Your task to perform on an android device: change notifications settings Image 0: 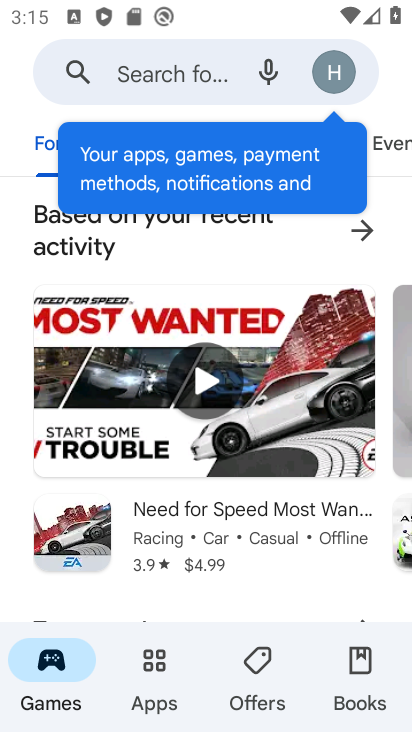
Step 0: press home button
Your task to perform on an android device: change notifications settings Image 1: 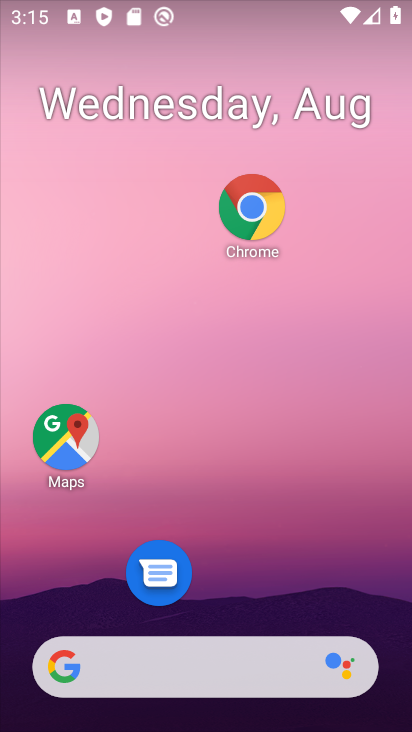
Step 1: drag from (258, 588) to (263, 1)
Your task to perform on an android device: change notifications settings Image 2: 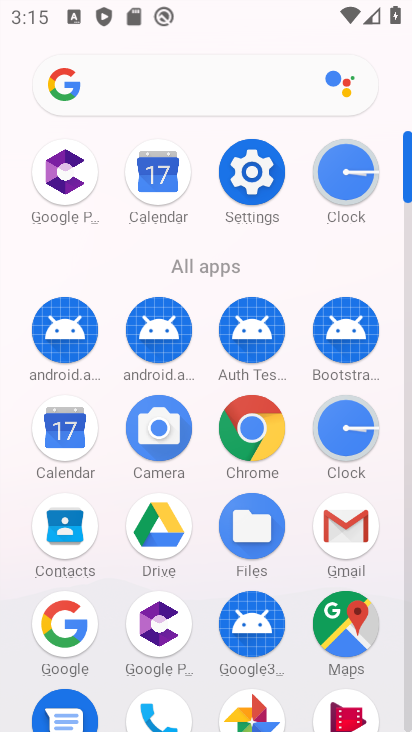
Step 2: click (251, 165)
Your task to perform on an android device: change notifications settings Image 3: 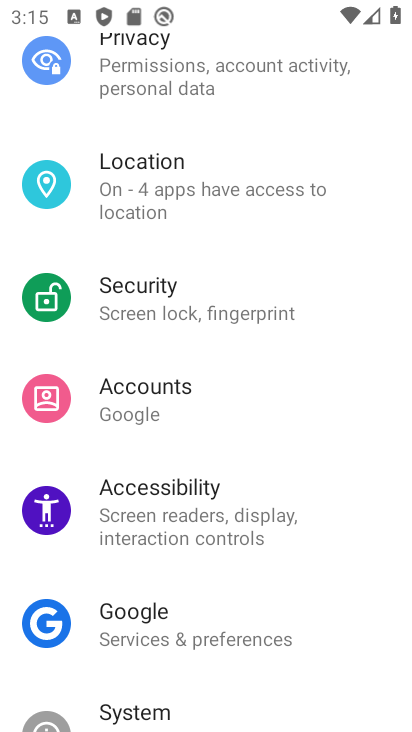
Step 3: drag from (241, 171) to (241, 666)
Your task to perform on an android device: change notifications settings Image 4: 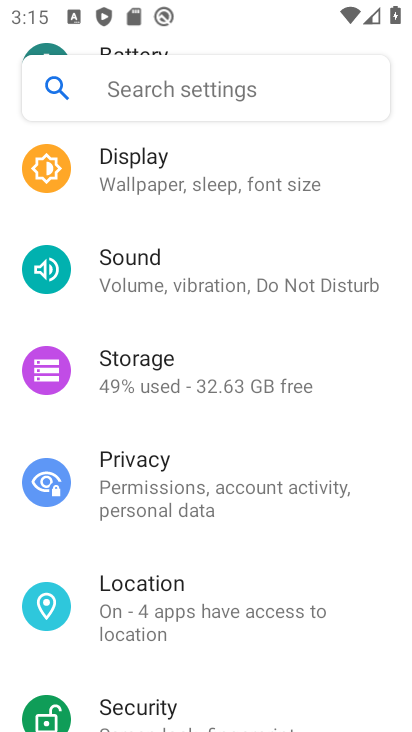
Step 4: drag from (289, 259) to (257, 651)
Your task to perform on an android device: change notifications settings Image 5: 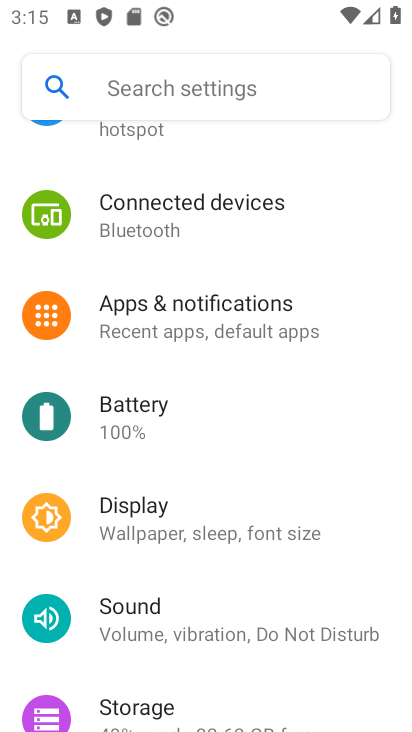
Step 5: click (254, 326)
Your task to perform on an android device: change notifications settings Image 6: 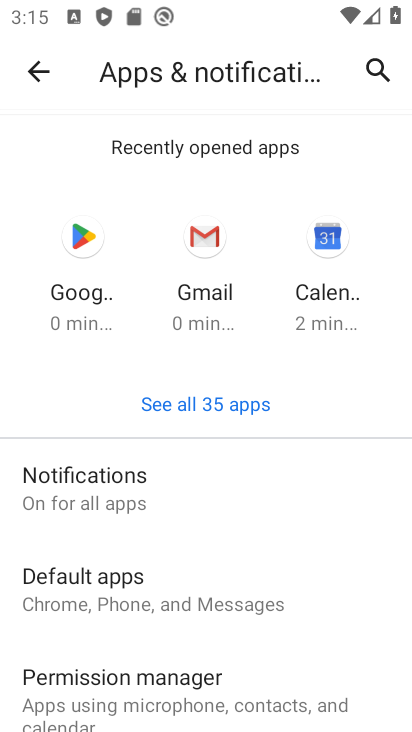
Step 6: click (110, 488)
Your task to perform on an android device: change notifications settings Image 7: 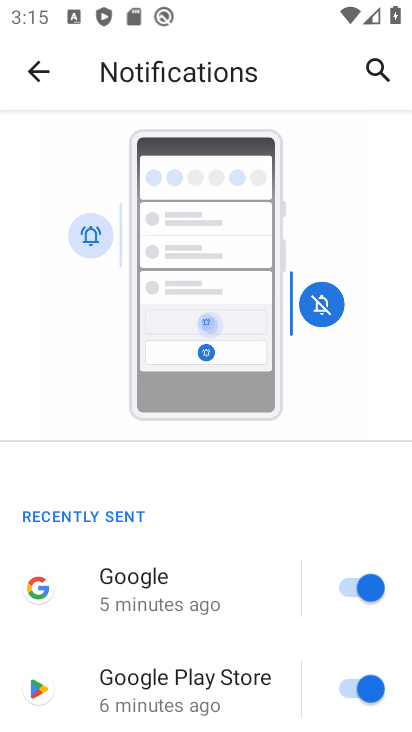
Step 7: drag from (216, 561) to (250, 42)
Your task to perform on an android device: change notifications settings Image 8: 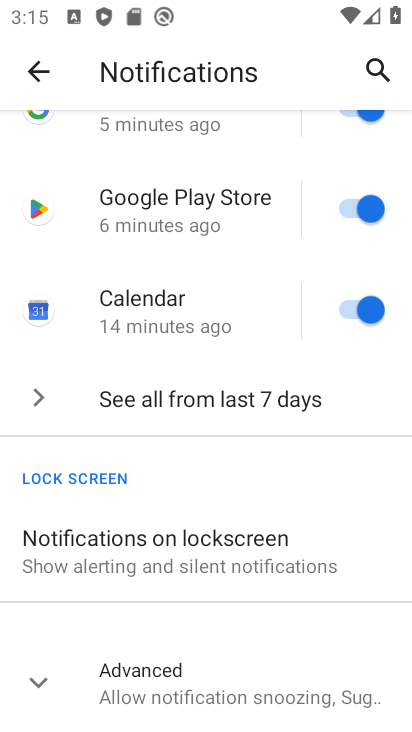
Step 8: click (237, 402)
Your task to perform on an android device: change notifications settings Image 9: 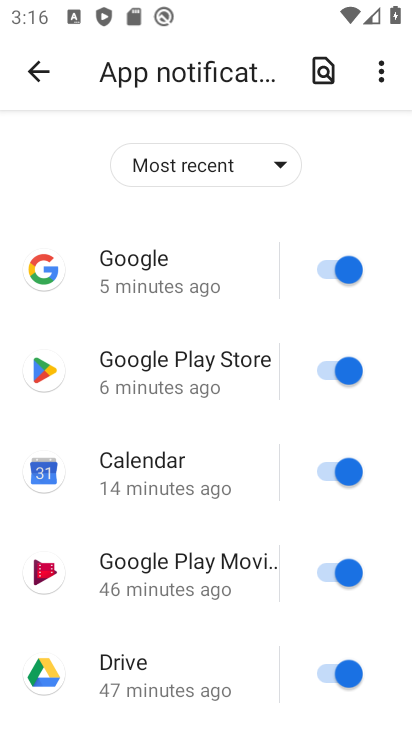
Step 9: click (336, 270)
Your task to perform on an android device: change notifications settings Image 10: 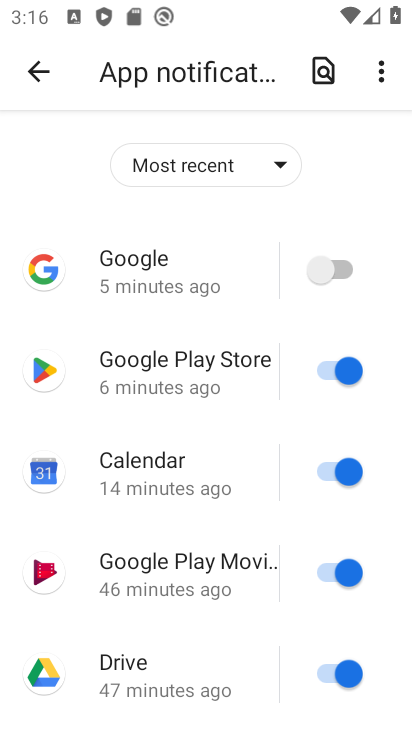
Step 10: click (332, 360)
Your task to perform on an android device: change notifications settings Image 11: 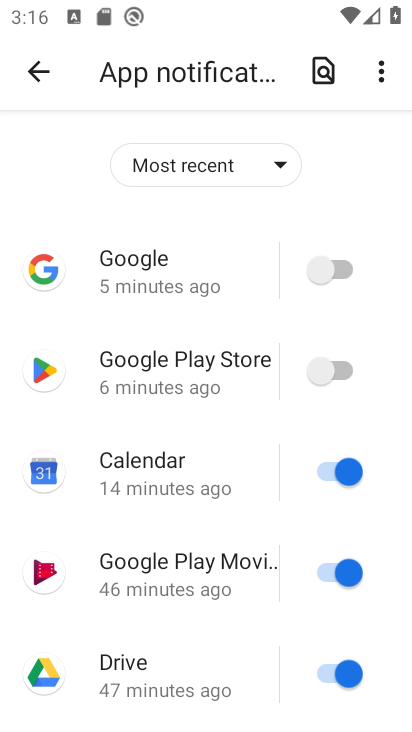
Step 11: click (337, 463)
Your task to perform on an android device: change notifications settings Image 12: 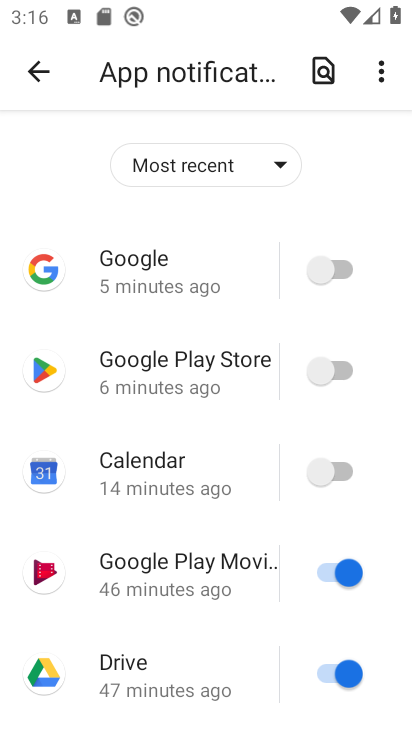
Step 12: click (337, 563)
Your task to perform on an android device: change notifications settings Image 13: 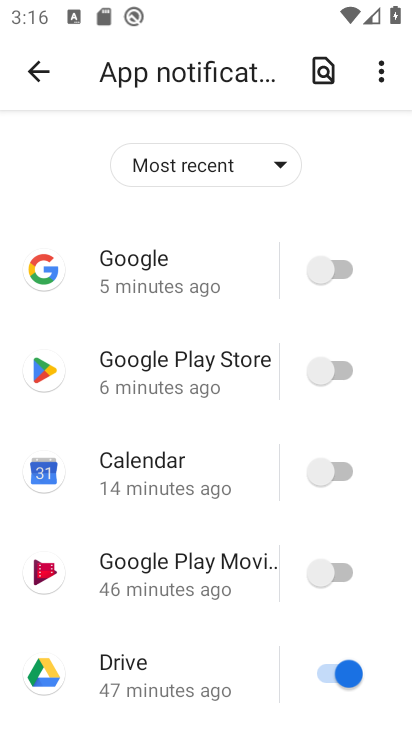
Step 13: click (341, 663)
Your task to perform on an android device: change notifications settings Image 14: 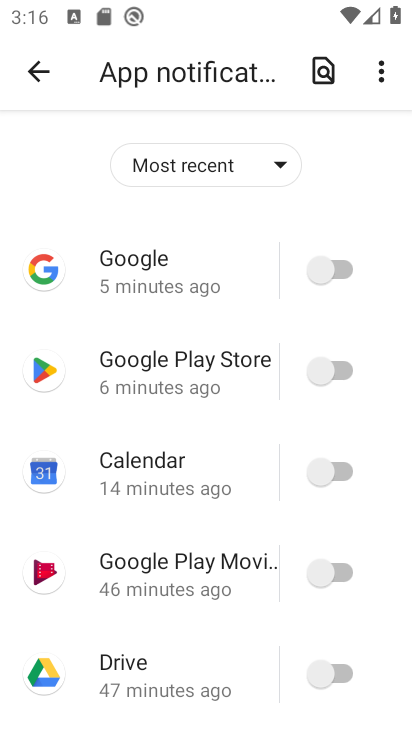
Step 14: drag from (192, 602) to (249, 5)
Your task to perform on an android device: change notifications settings Image 15: 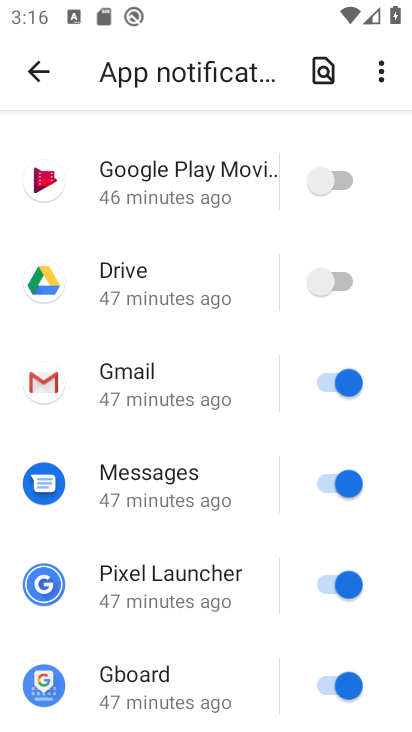
Step 15: click (335, 368)
Your task to perform on an android device: change notifications settings Image 16: 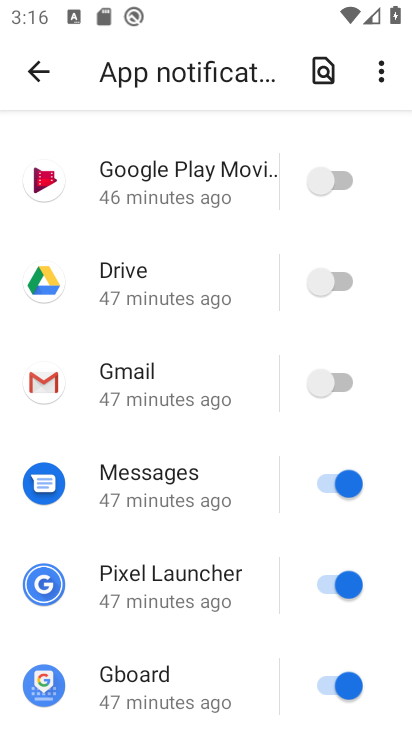
Step 16: click (344, 476)
Your task to perform on an android device: change notifications settings Image 17: 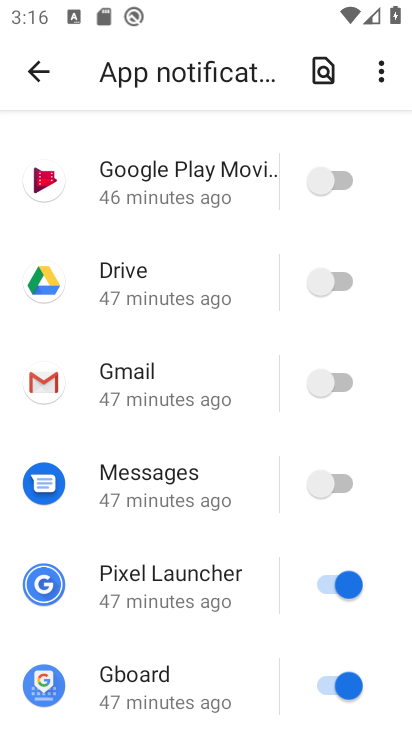
Step 17: click (340, 587)
Your task to perform on an android device: change notifications settings Image 18: 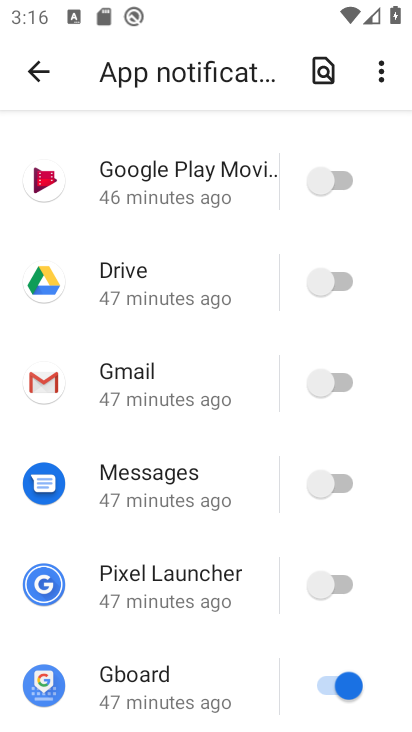
Step 18: click (342, 679)
Your task to perform on an android device: change notifications settings Image 19: 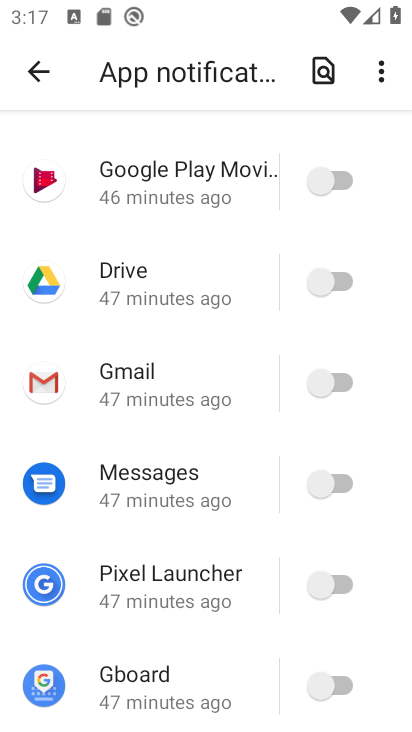
Step 19: task complete